Your task to perform on an android device: Set the phone to "Do not disturb". Image 0: 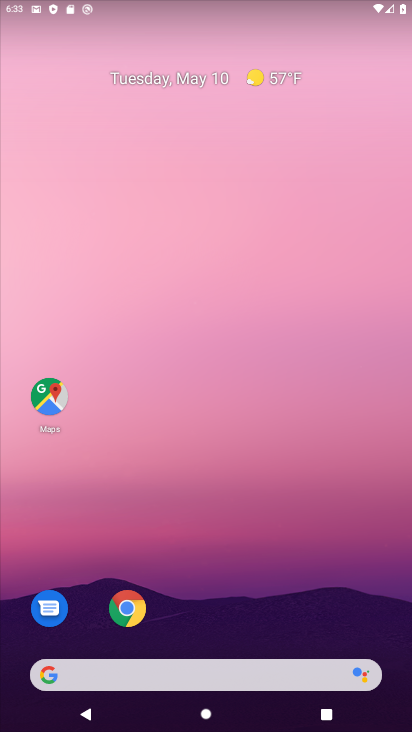
Step 0: drag from (220, 24) to (235, 414)
Your task to perform on an android device: Set the phone to "Do not disturb". Image 1: 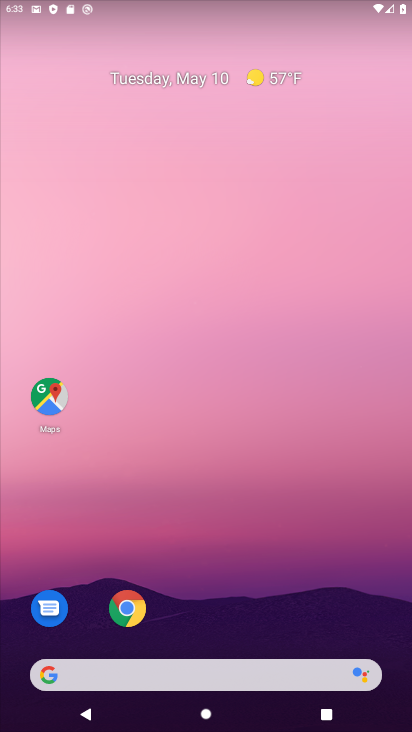
Step 1: drag from (213, 4) to (234, 374)
Your task to perform on an android device: Set the phone to "Do not disturb". Image 2: 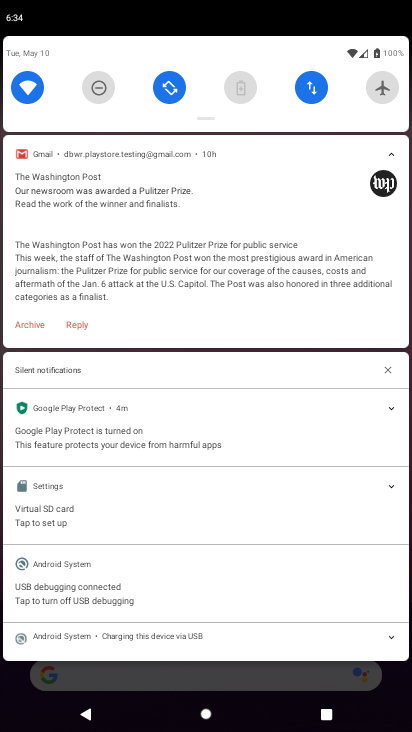
Step 2: click (96, 88)
Your task to perform on an android device: Set the phone to "Do not disturb". Image 3: 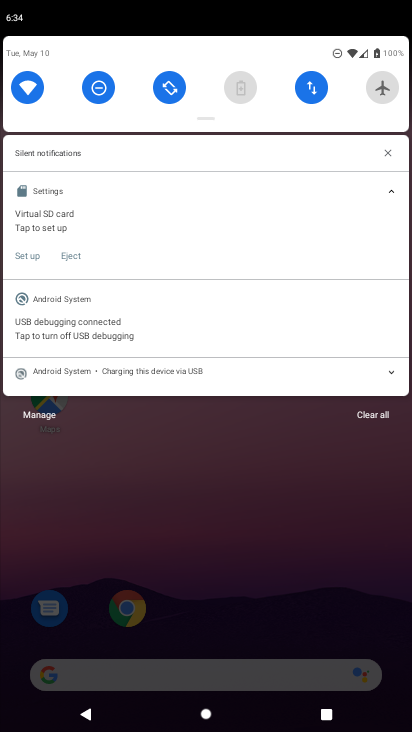
Step 3: task complete